Your task to perform on an android device: check data usage Image 0: 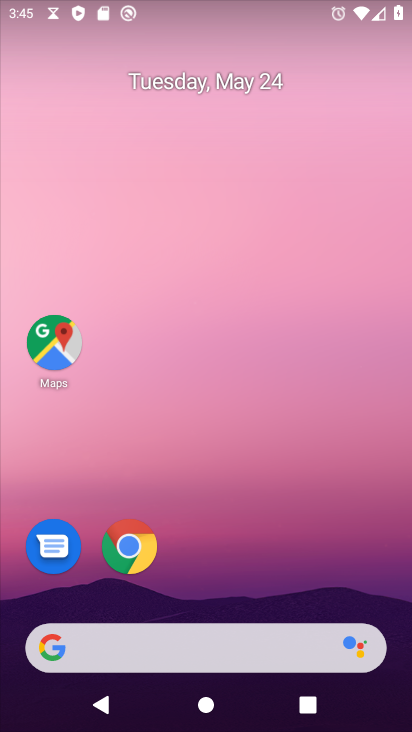
Step 0: click (396, 644)
Your task to perform on an android device: check data usage Image 1: 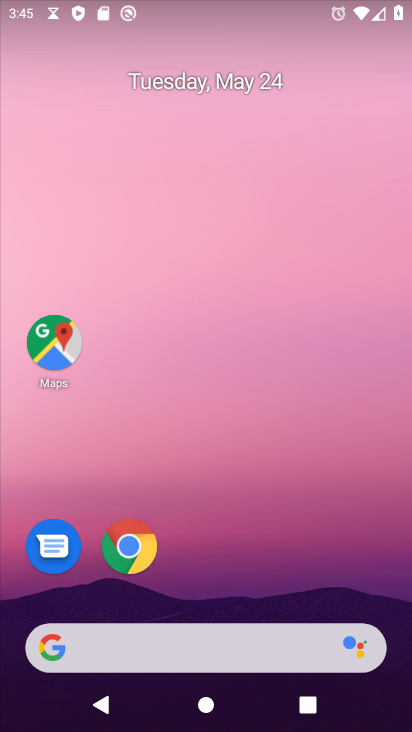
Step 1: drag from (279, 705) to (256, 222)
Your task to perform on an android device: check data usage Image 2: 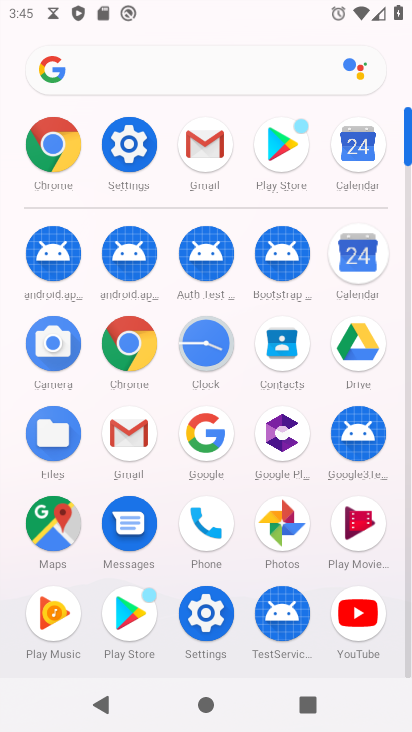
Step 2: click (126, 138)
Your task to perform on an android device: check data usage Image 3: 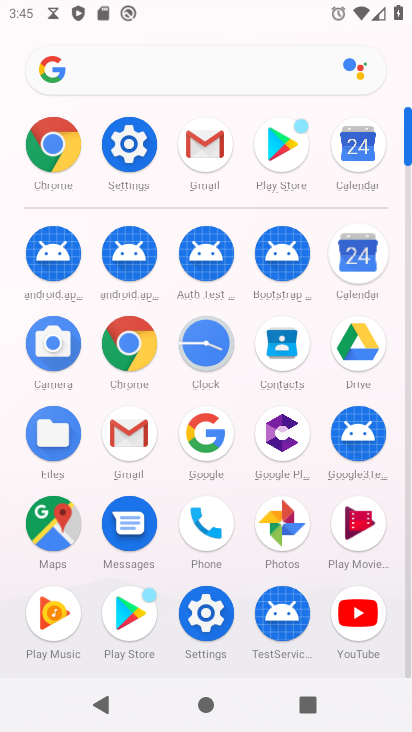
Step 3: click (138, 138)
Your task to perform on an android device: check data usage Image 4: 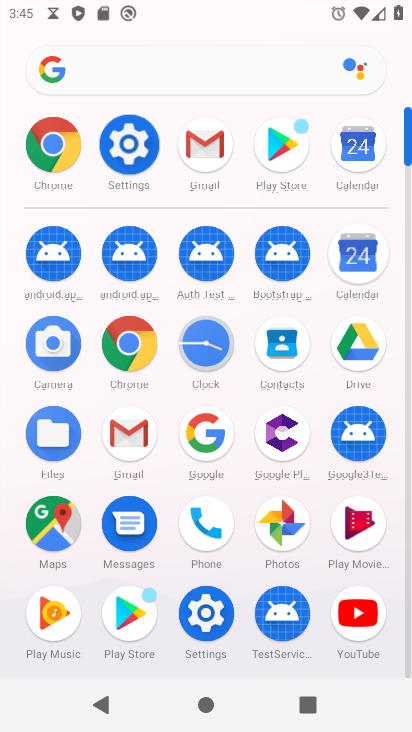
Step 4: click (151, 138)
Your task to perform on an android device: check data usage Image 5: 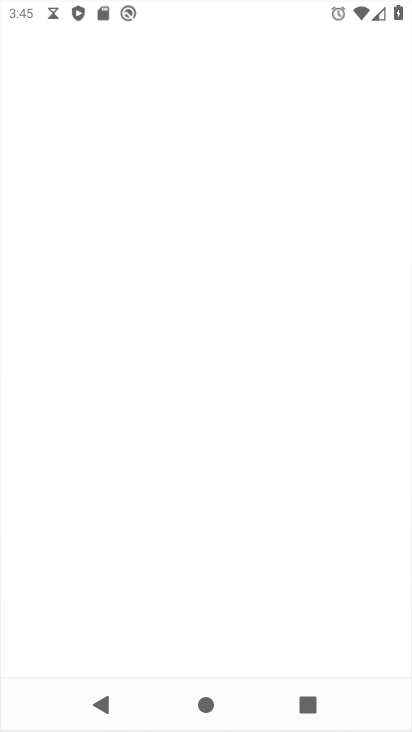
Step 5: click (151, 138)
Your task to perform on an android device: check data usage Image 6: 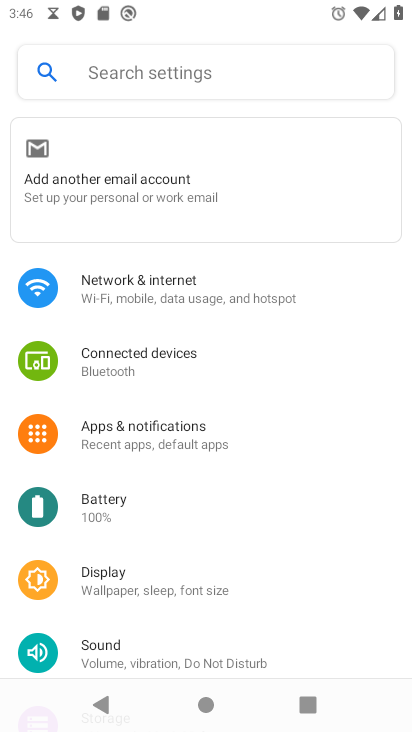
Step 6: drag from (154, 563) to (138, 269)
Your task to perform on an android device: check data usage Image 7: 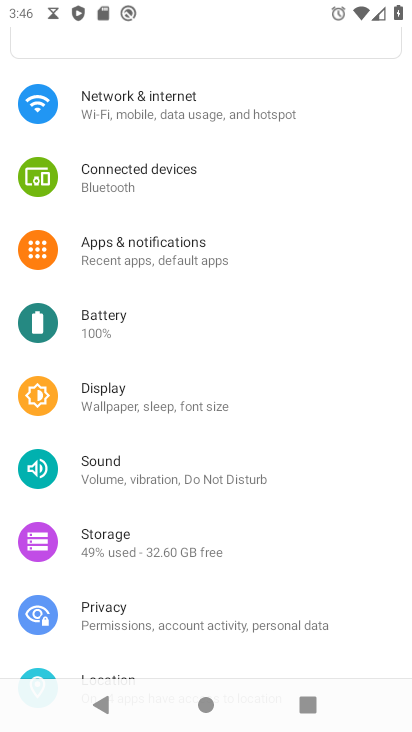
Step 7: drag from (173, 532) to (141, 202)
Your task to perform on an android device: check data usage Image 8: 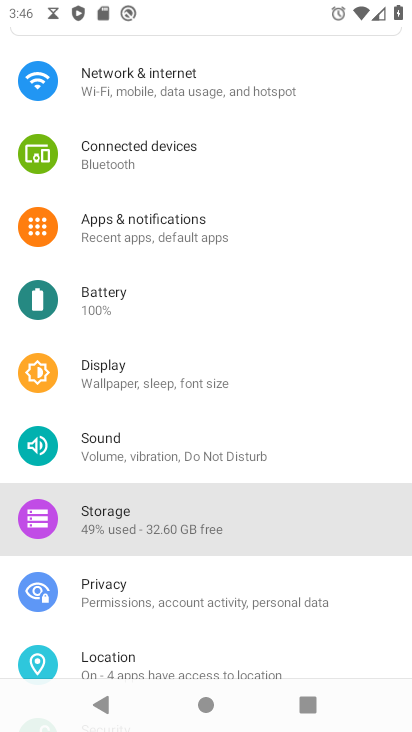
Step 8: drag from (150, 558) to (82, 251)
Your task to perform on an android device: check data usage Image 9: 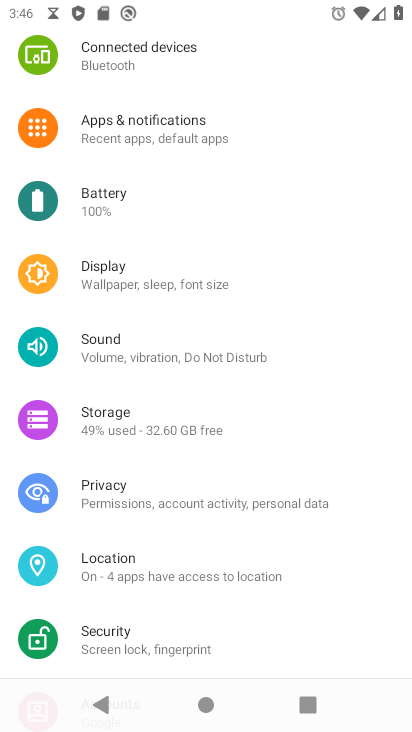
Step 9: drag from (134, 302) to (182, 572)
Your task to perform on an android device: check data usage Image 10: 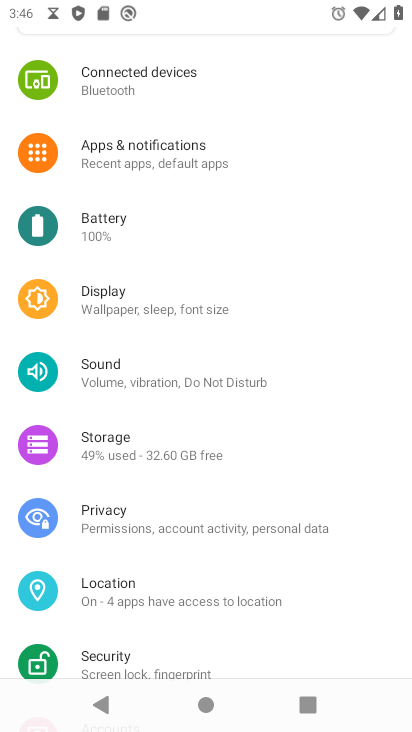
Step 10: drag from (136, 304) to (140, 601)
Your task to perform on an android device: check data usage Image 11: 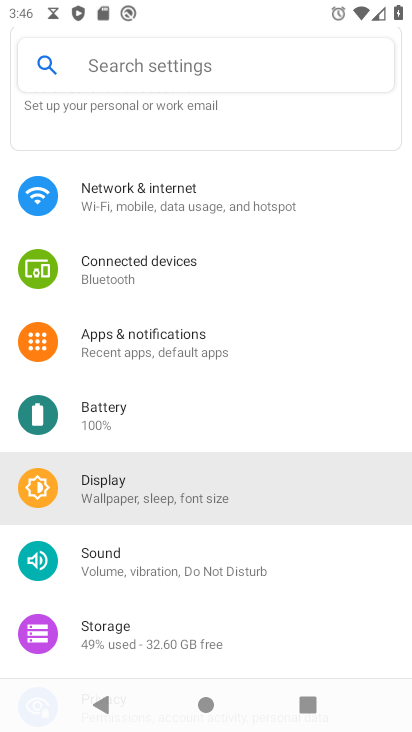
Step 11: drag from (143, 306) to (145, 543)
Your task to perform on an android device: check data usage Image 12: 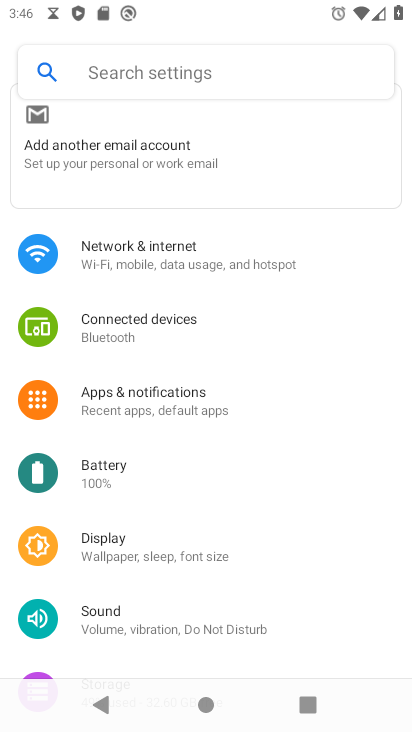
Step 12: click (161, 263)
Your task to perform on an android device: check data usage Image 13: 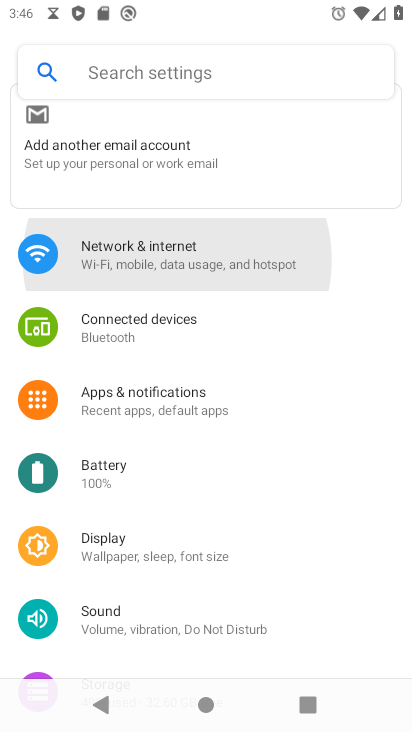
Step 13: click (161, 263)
Your task to perform on an android device: check data usage Image 14: 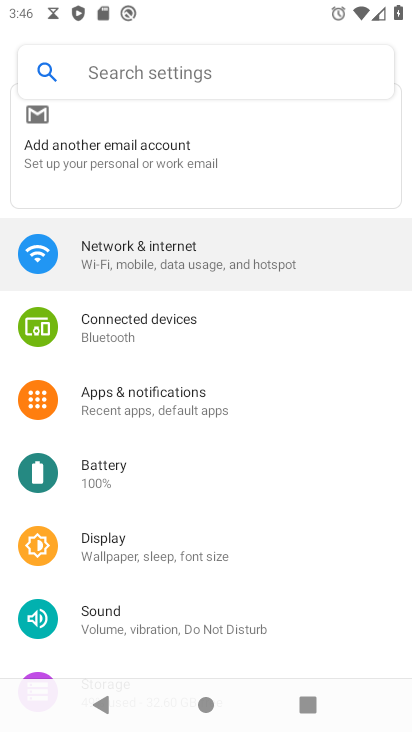
Step 14: click (165, 258)
Your task to perform on an android device: check data usage Image 15: 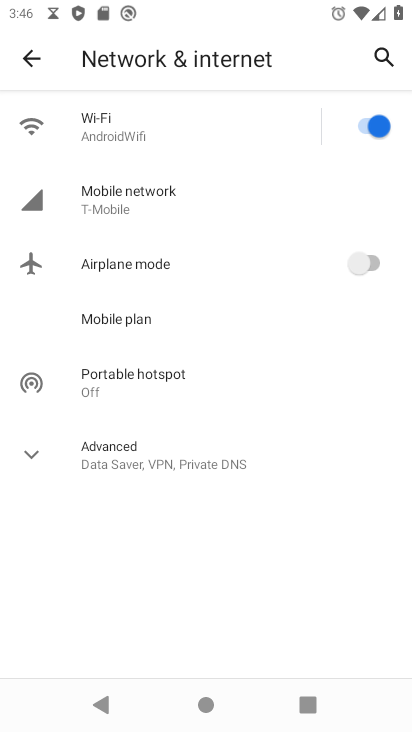
Step 15: task complete